Your task to perform on an android device: Search for pizza restaurants on Maps Image 0: 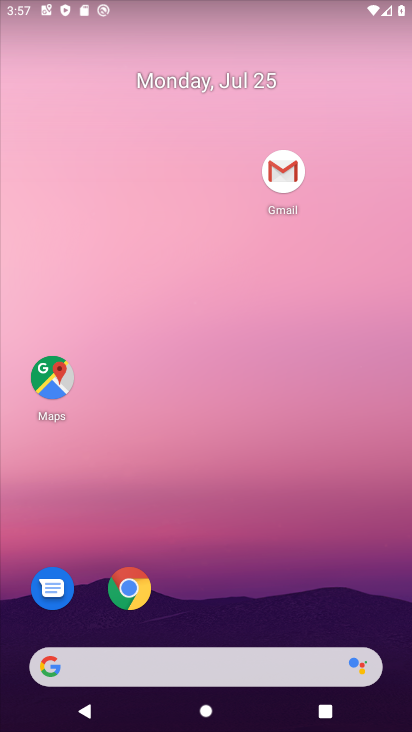
Step 0: drag from (313, 517) to (410, 91)
Your task to perform on an android device: Search for pizza restaurants on Maps Image 1: 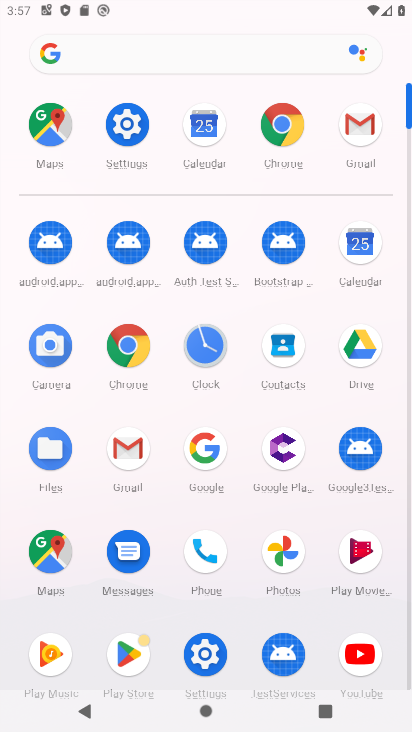
Step 1: click (51, 124)
Your task to perform on an android device: Search for pizza restaurants on Maps Image 2: 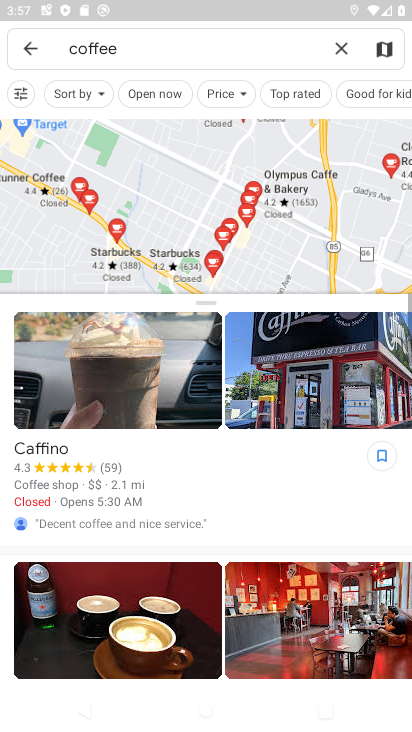
Step 2: click (343, 47)
Your task to perform on an android device: Search for pizza restaurants on Maps Image 3: 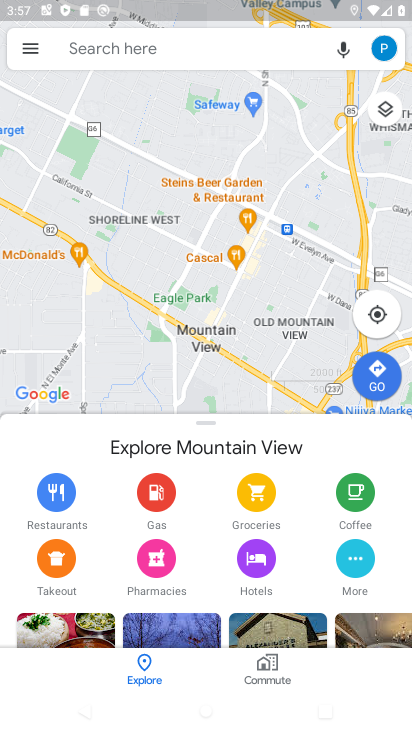
Step 3: click (247, 47)
Your task to perform on an android device: Search for pizza restaurants on Maps Image 4: 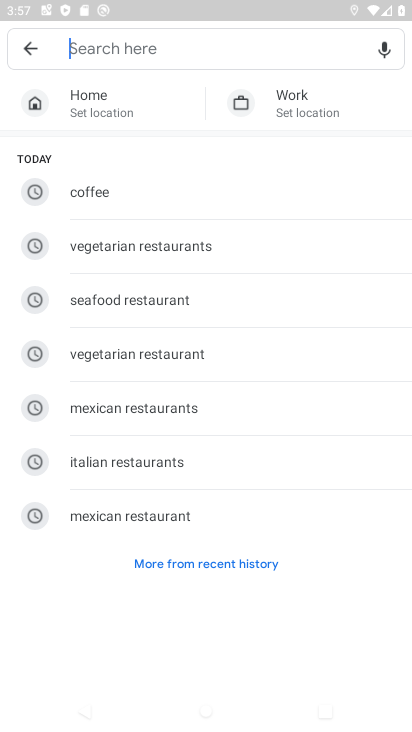
Step 4: type ""
Your task to perform on an android device: Search for pizza restaurants on Maps Image 5: 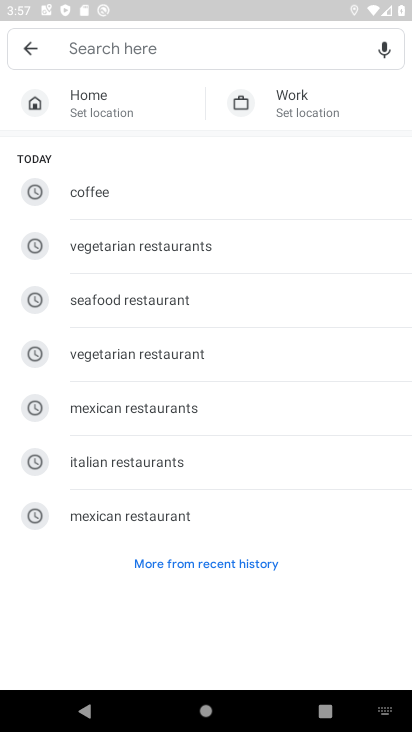
Step 5: type "pizza restaurants"
Your task to perform on an android device: Search for pizza restaurants on Maps Image 6: 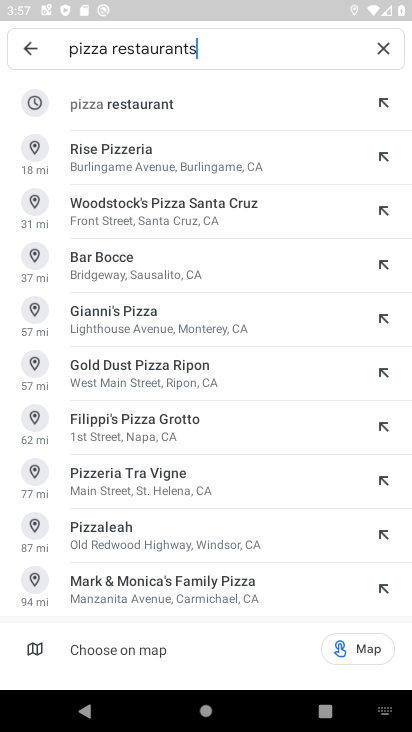
Step 6: press enter
Your task to perform on an android device: Search for pizza restaurants on Maps Image 7: 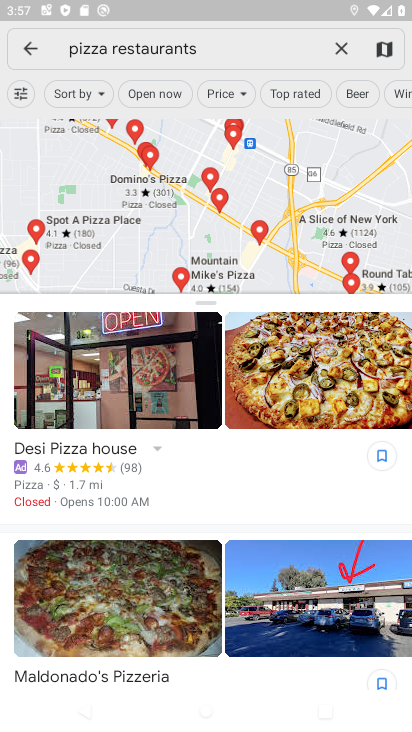
Step 7: task complete